Your task to perform on an android device: Search for sushi restaurants on Maps Image 0: 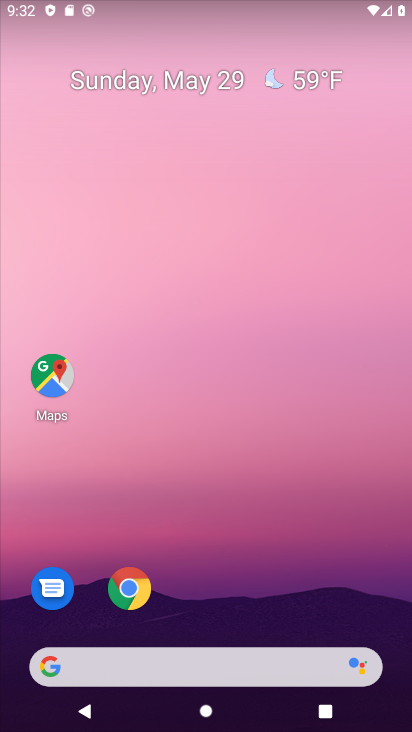
Step 0: click (259, 113)
Your task to perform on an android device: Search for sushi restaurants on Maps Image 1: 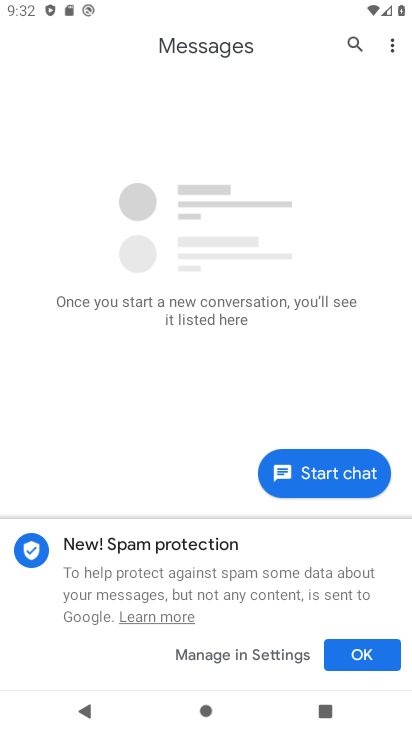
Step 1: press home button
Your task to perform on an android device: Search for sushi restaurants on Maps Image 2: 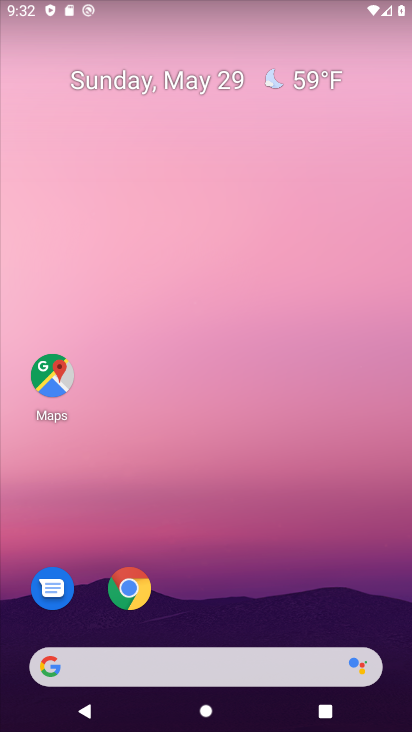
Step 2: click (67, 370)
Your task to perform on an android device: Search for sushi restaurants on Maps Image 3: 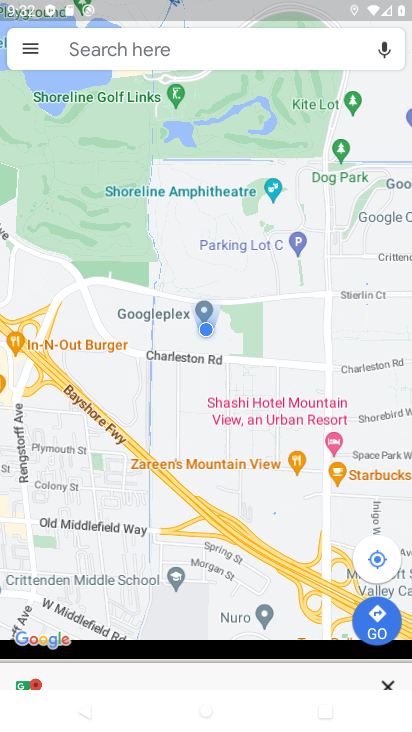
Step 3: click (181, 41)
Your task to perform on an android device: Search for sushi restaurants on Maps Image 4: 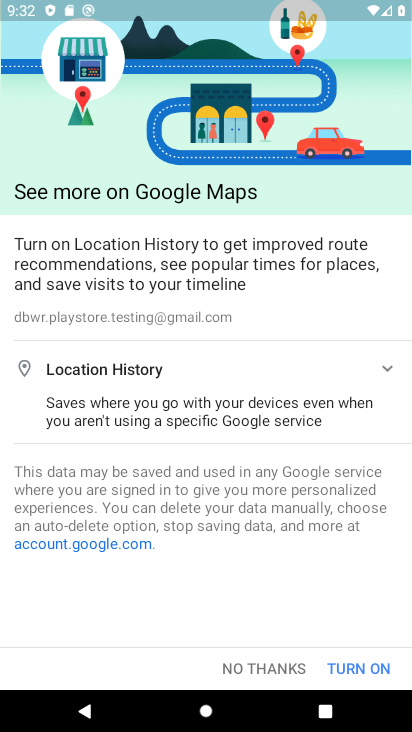
Step 4: click (245, 664)
Your task to perform on an android device: Search for sushi restaurants on Maps Image 5: 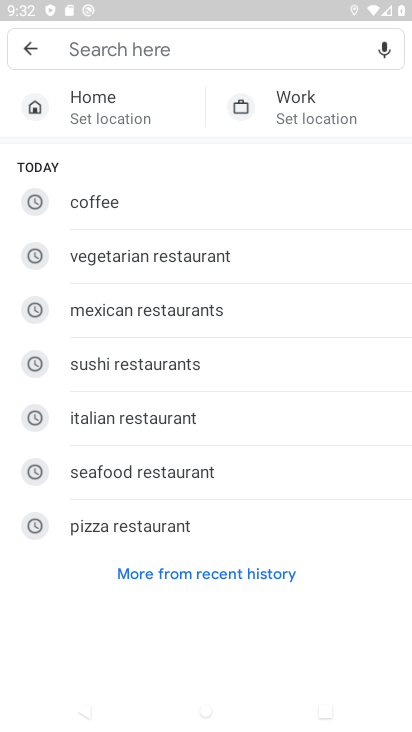
Step 5: click (190, 367)
Your task to perform on an android device: Search for sushi restaurants on Maps Image 6: 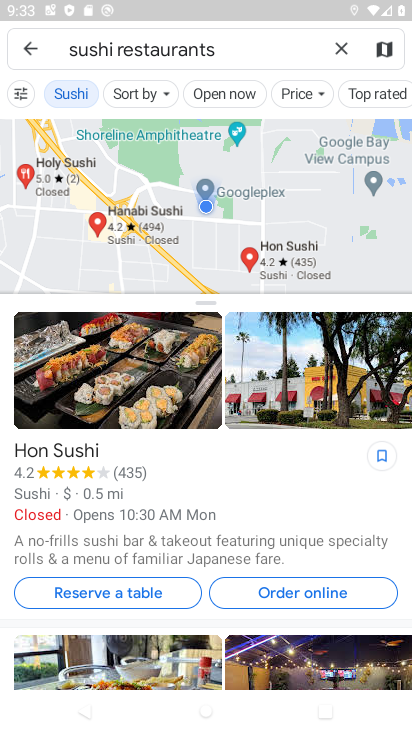
Step 6: task complete